Your task to perform on an android device: Go to sound settings Image 0: 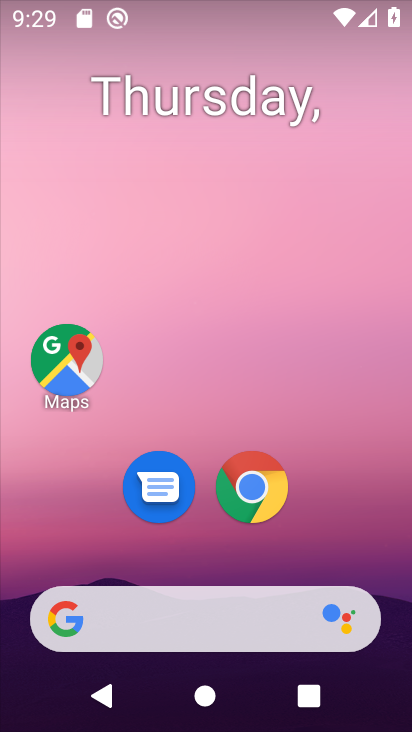
Step 0: drag from (325, 530) to (205, 73)
Your task to perform on an android device: Go to sound settings Image 1: 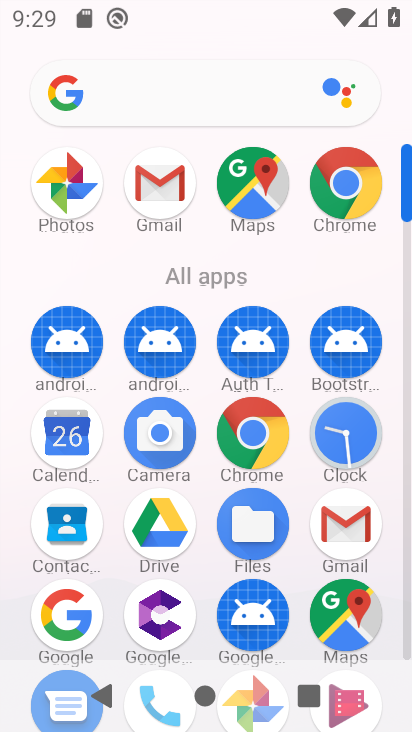
Step 1: drag from (210, 578) to (180, 276)
Your task to perform on an android device: Go to sound settings Image 2: 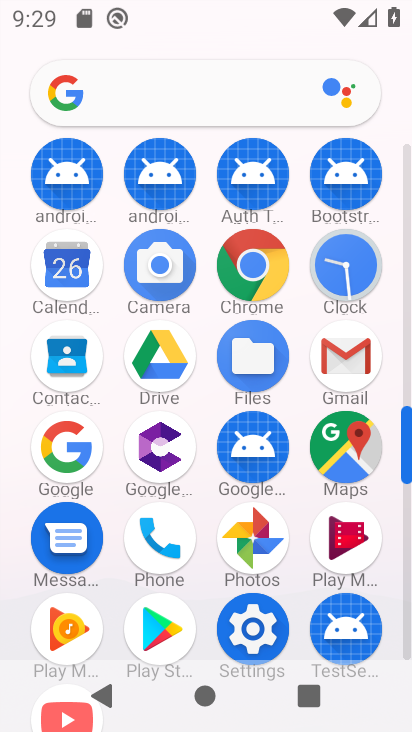
Step 2: click (271, 556)
Your task to perform on an android device: Go to sound settings Image 3: 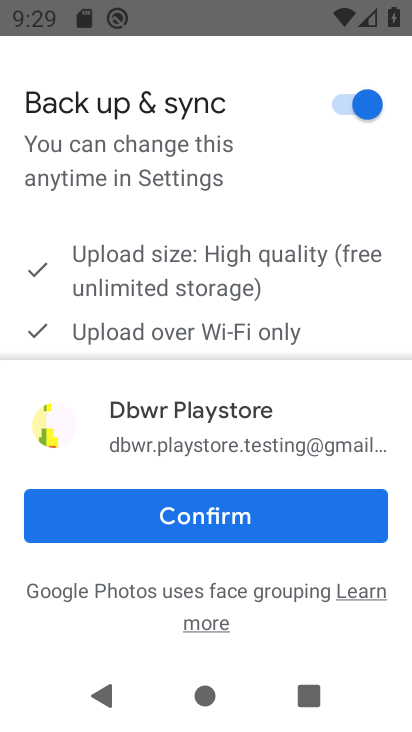
Step 3: press home button
Your task to perform on an android device: Go to sound settings Image 4: 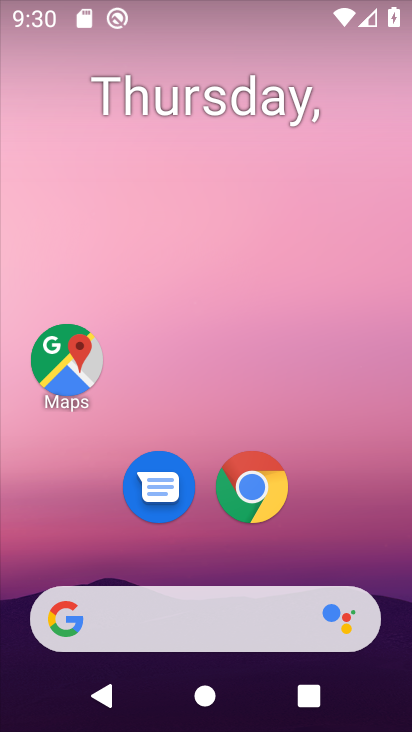
Step 4: drag from (334, 496) to (260, 17)
Your task to perform on an android device: Go to sound settings Image 5: 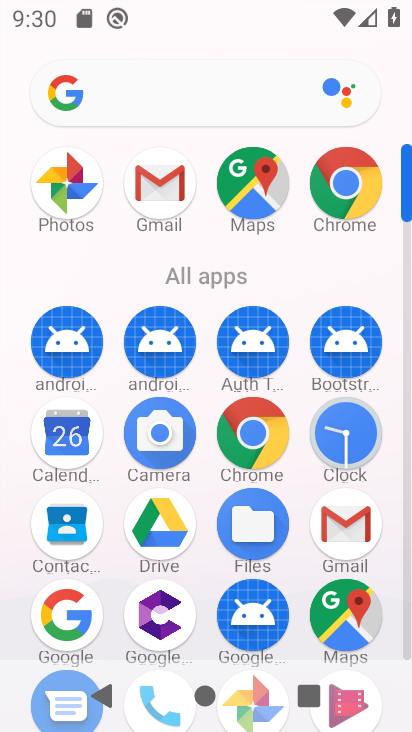
Step 5: drag from (208, 639) to (171, 180)
Your task to perform on an android device: Go to sound settings Image 6: 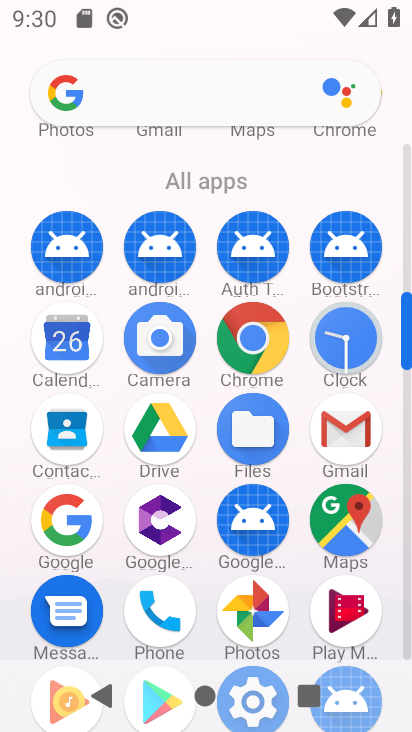
Step 6: drag from (202, 553) to (162, 137)
Your task to perform on an android device: Go to sound settings Image 7: 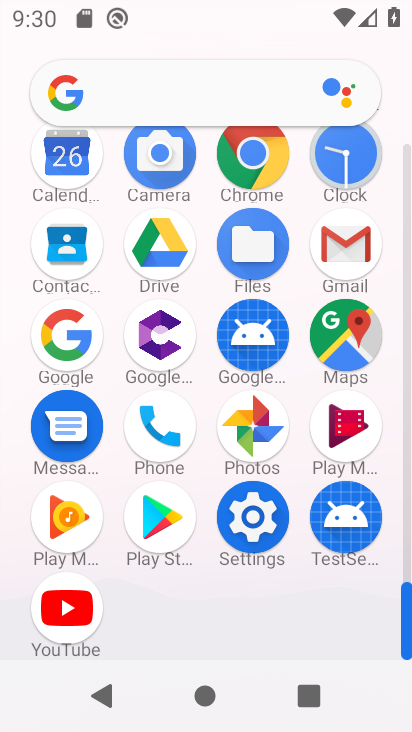
Step 7: click (258, 521)
Your task to perform on an android device: Go to sound settings Image 8: 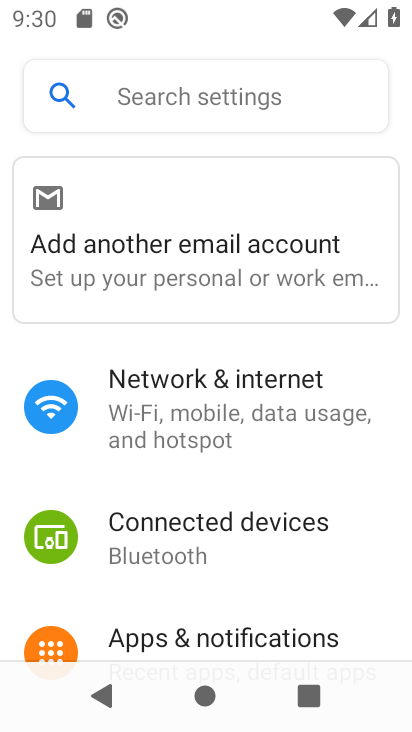
Step 8: drag from (232, 579) to (175, 170)
Your task to perform on an android device: Go to sound settings Image 9: 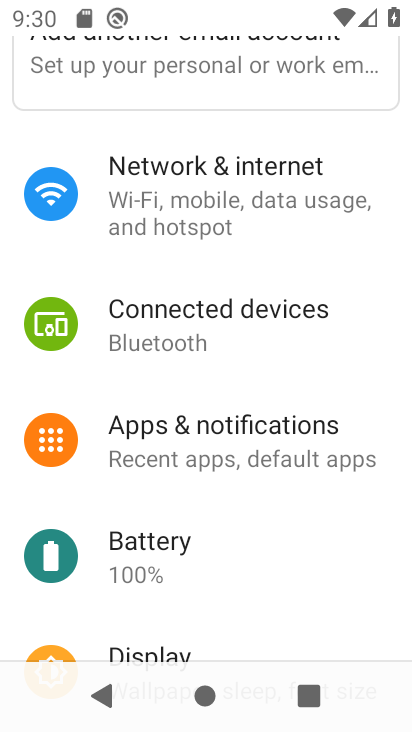
Step 9: drag from (247, 532) to (207, 248)
Your task to perform on an android device: Go to sound settings Image 10: 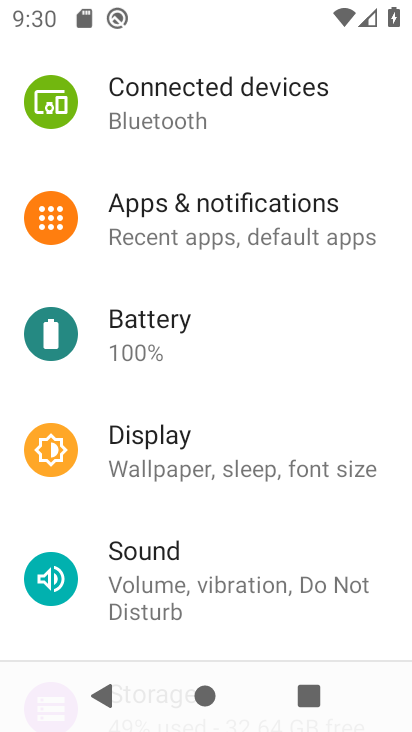
Step 10: click (145, 564)
Your task to perform on an android device: Go to sound settings Image 11: 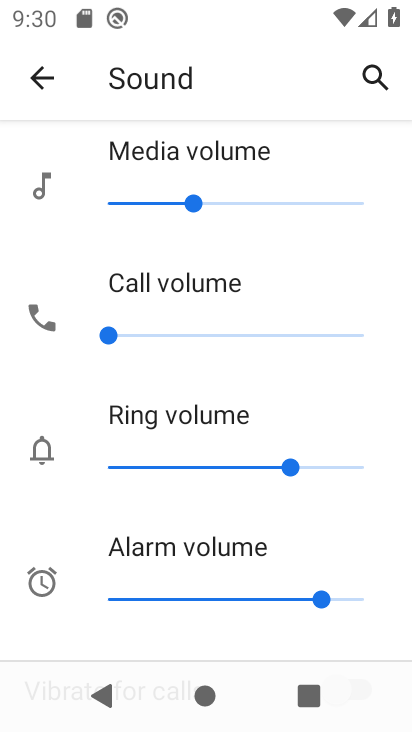
Step 11: task complete